Your task to perform on an android device: turn on sleep mode Image 0: 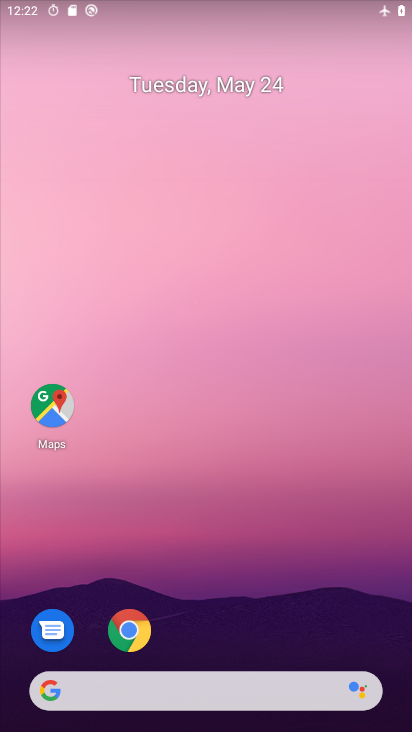
Step 0: drag from (213, 594) to (354, 377)
Your task to perform on an android device: turn on sleep mode Image 1: 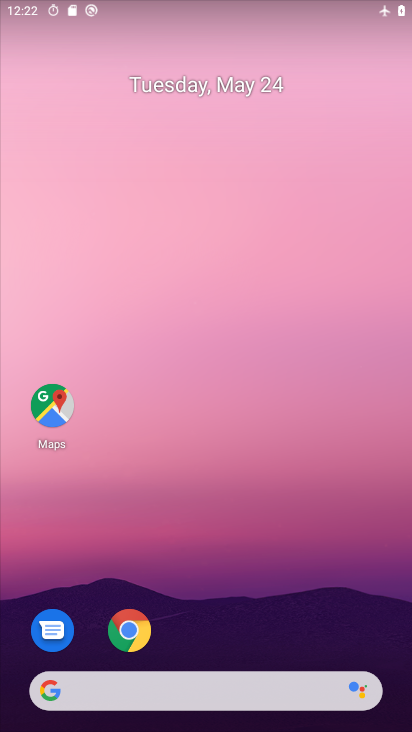
Step 1: drag from (209, 677) to (243, 0)
Your task to perform on an android device: turn on sleep mode Image 2: 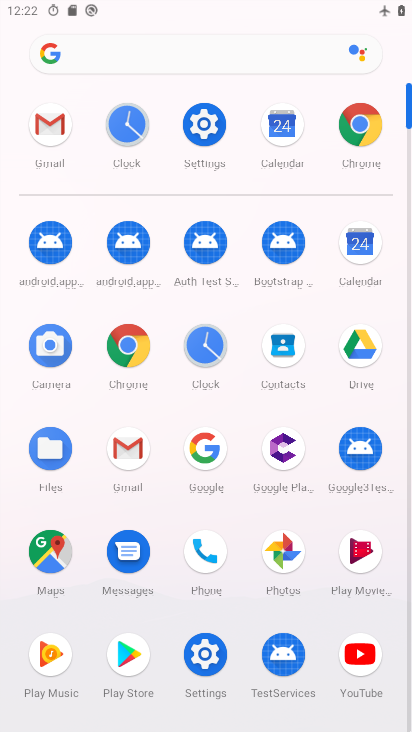
Step 2: click (206, 135)
Your task to perform on an android device: turn on sleep mode Image 3: 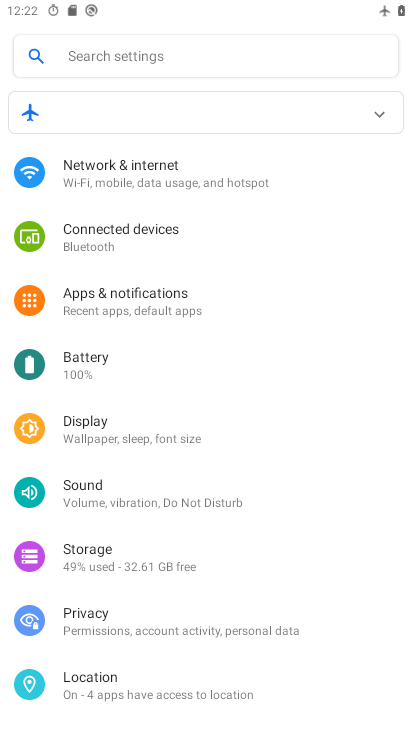
Step 3: click (172, 57)
Your task to perform on an android device: turn on sleep mode Image 4: 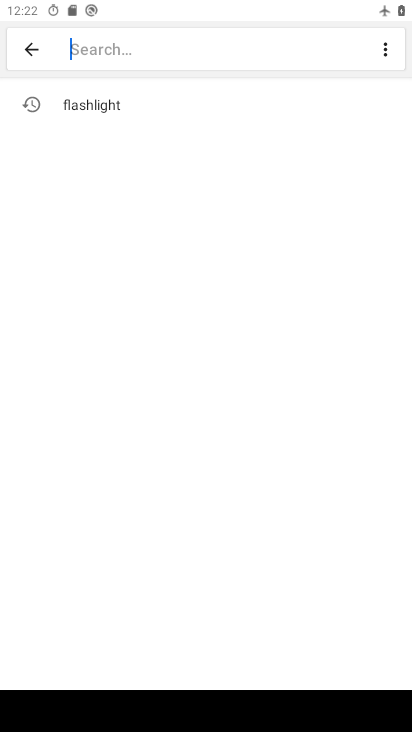
Step 4: type "sleep mode"
Your task to perform on an android device: turn on sleep mode Image 5: 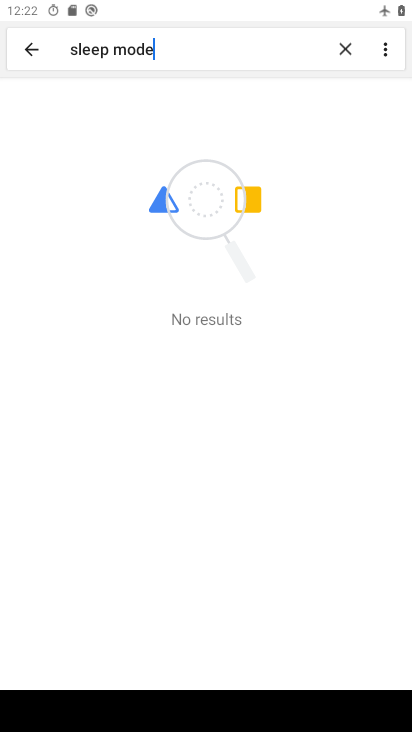
Step 5: task complete